Your task to perform on an android device: add a contact in the contacts app Image 0: 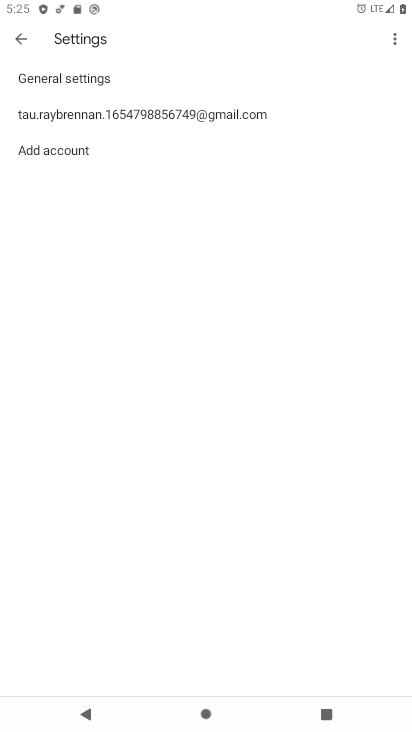
Step 0: press home button
Your task to perform on an android device: add a contact in the contacts app Image 1: 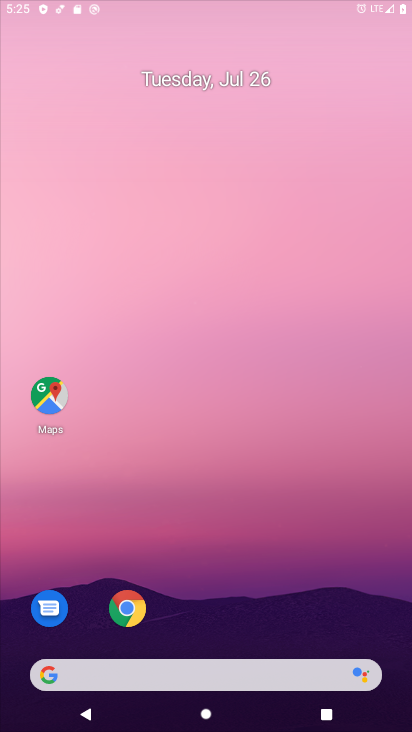
Step 1: drag from (365, 648) to (158, 3)
Your task to perform on an android device: add a contact in the contacts app Image 2: 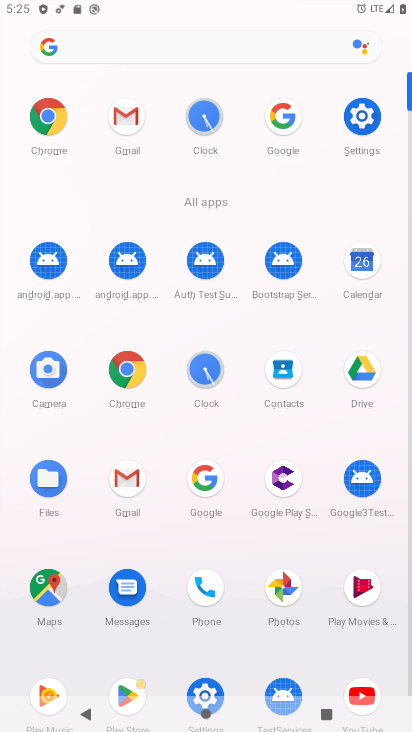
Step 2: click (272, 372)
Your task to perform on an android device: add a contact in the contacts app Image 3: 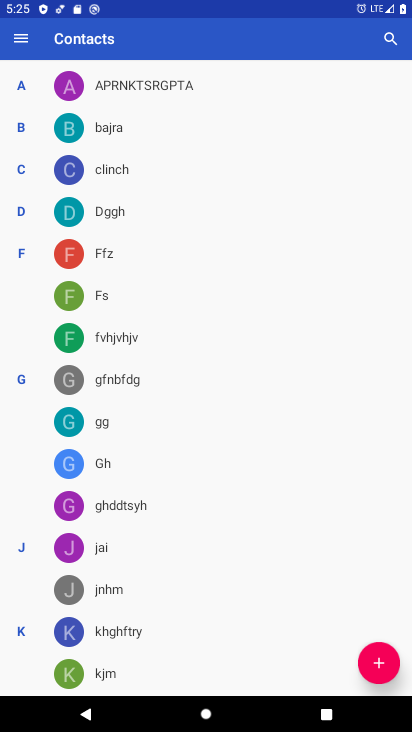
Step 3: click (383, 659)
Your task to perform on an android device: add a contact in the contacts app Image 4: 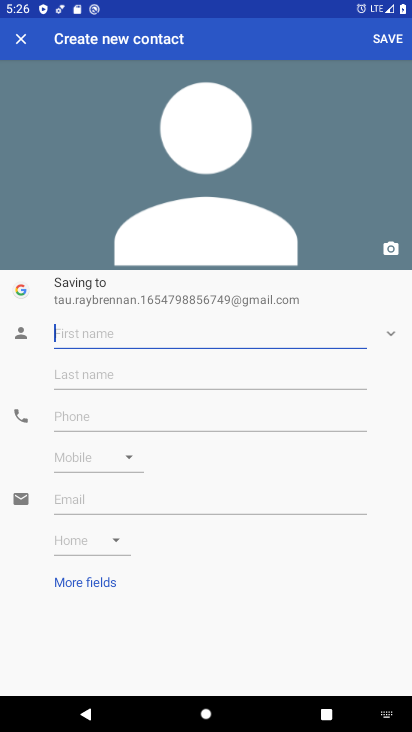
Step 4: type "yo honey"
Your task to perform on an android device: add a contact in the contacts app Image 5: 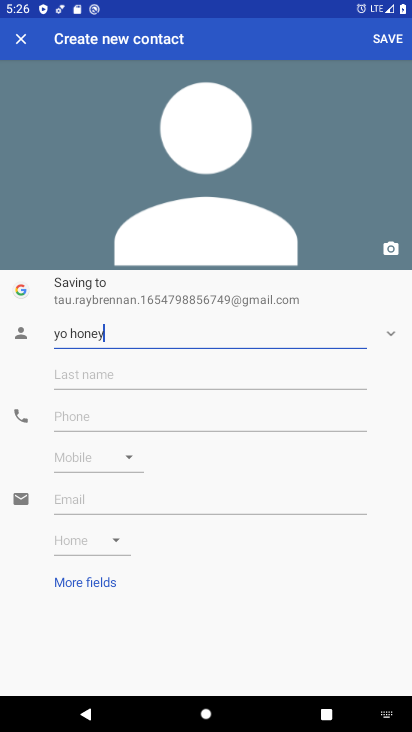
Step 5: click (401, 33)
Your task to perform on an android device: add a contact in the contacts app Image 6: 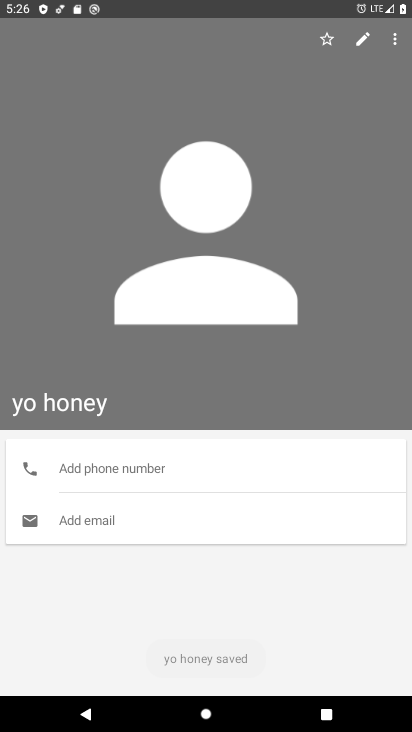
Step 6: task complete